Your task to perform on an android device: Open calendar and show me the fourth week of next month Image 0: 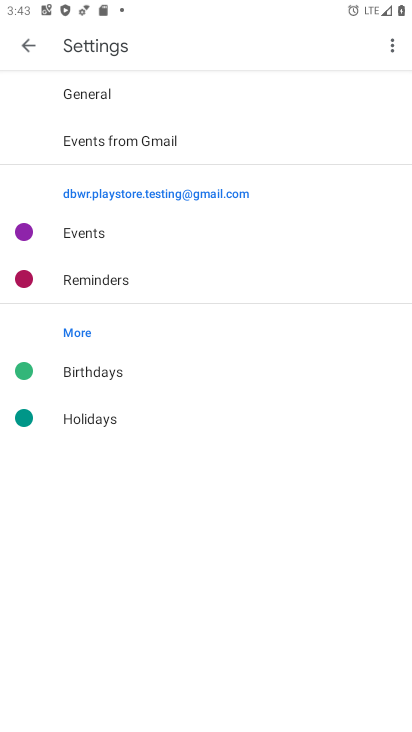
Step 0: press home button
Your task to perform on an android device: Open calendar and show me the fourth week of next month Image 1: 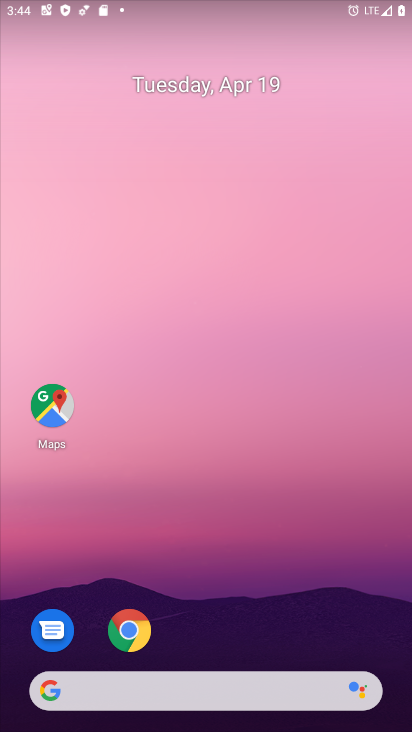
Step 1: drag from (217, 722) to (198, 94)
Your task to perform on an android device: Open calendar and show me the fourth week of next month Image 2: 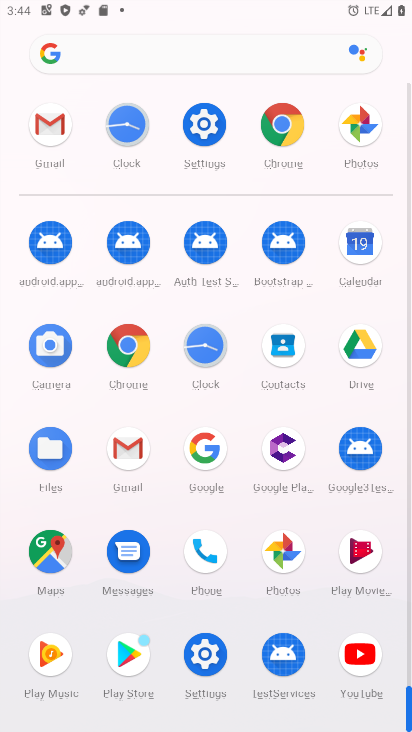
Step 2: click (366, 241)
Your task to perform on an android device: Open calendar and show me the fourth week of next month Image 3: 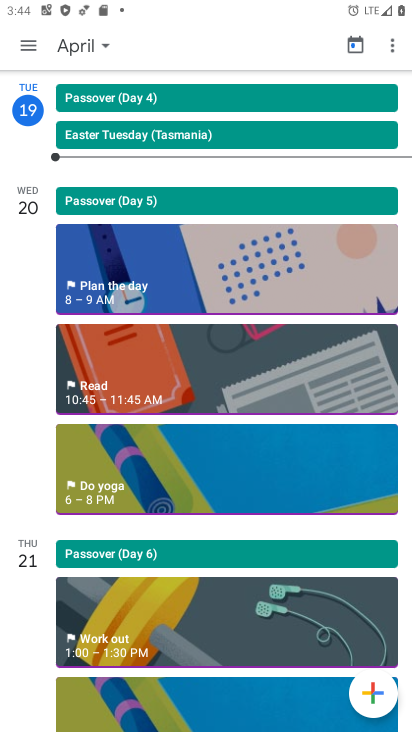
Step 3: click (76, 43)
Your task to perform on an android device: Open calendar and show me the fourth week of next month Image 4: 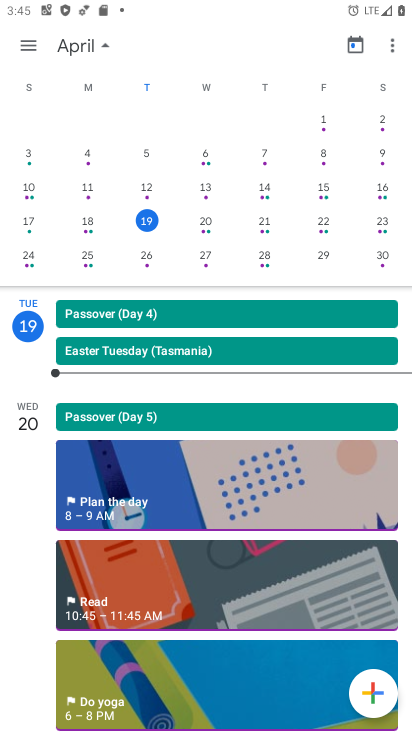
Step 4: drag from (325, 185) to (19, 209)
Your task to perform on an android device: Open calendar and show me the fourth week of next month Image 5: 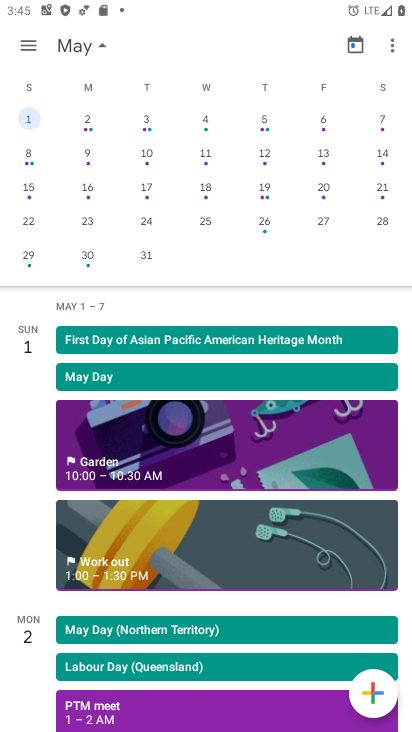
Step 5: click (87, 216)
Your task to perform on an android device: Open calendar and show me the fourth week of next month Image 6: 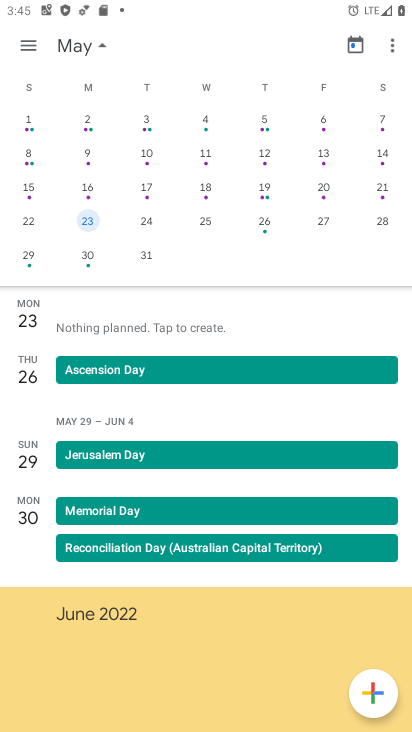
Step 6: task complete